Your task to perform on an android device: all mails in gmail Image 0: 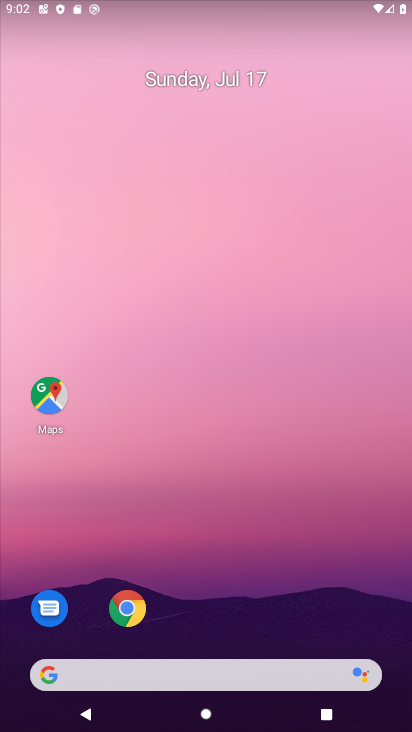
Step 0: drag from (198, 680) to (195, 224)
Your task to perform on an android device: all mails in gmail Image 1: 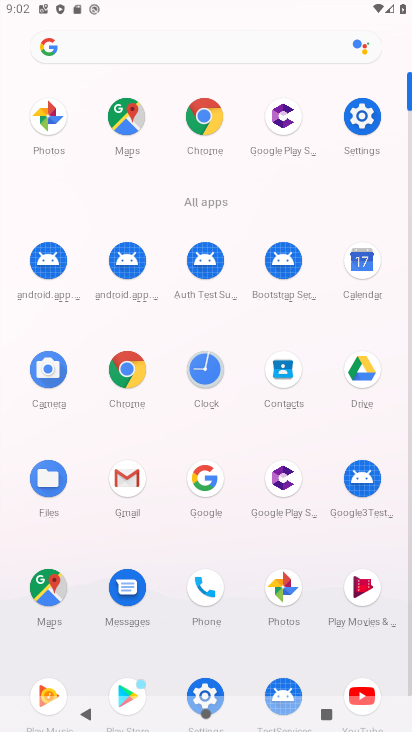
Step 1: click (127, 473)
Your task to perform on an android device: all mails in gmail Image 2: 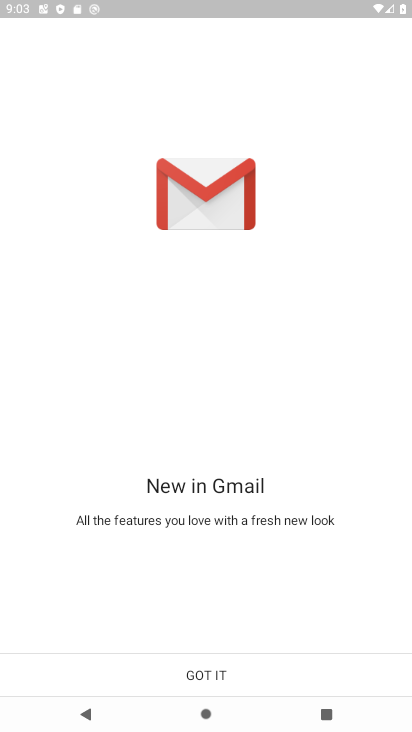
Step 2: click (214, 673)
Your task to perform on an android device: all mails in gmail Image 3: 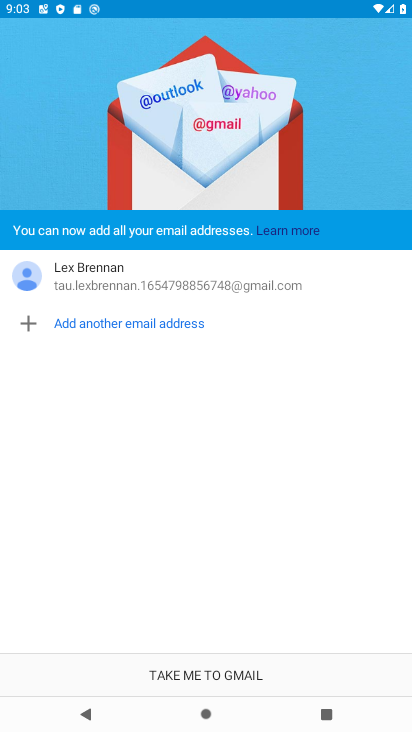
Step 3: click (204, 673)
Your task to perform on an android device: all mails in gmail Image 4: 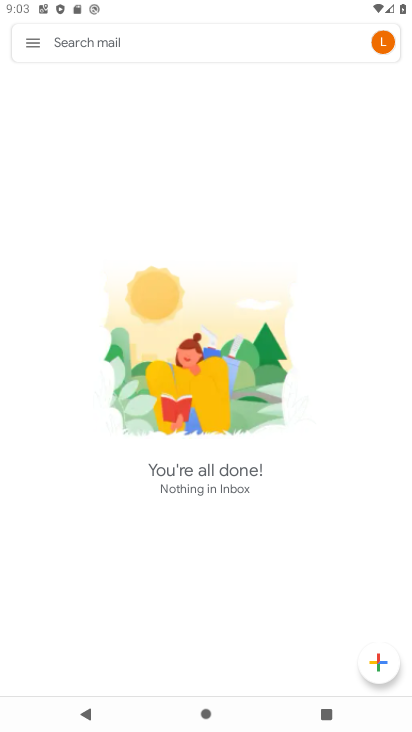
Step 4: click (36, 34)
Your task to perform on an android device: all mails in gmail Image 5: 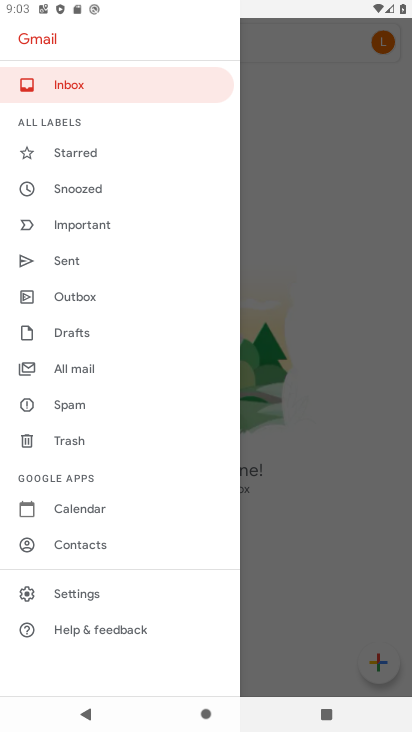
Step 5: click (70, 372)
Your task to perform on an android device: all mails in gmail Image 6: 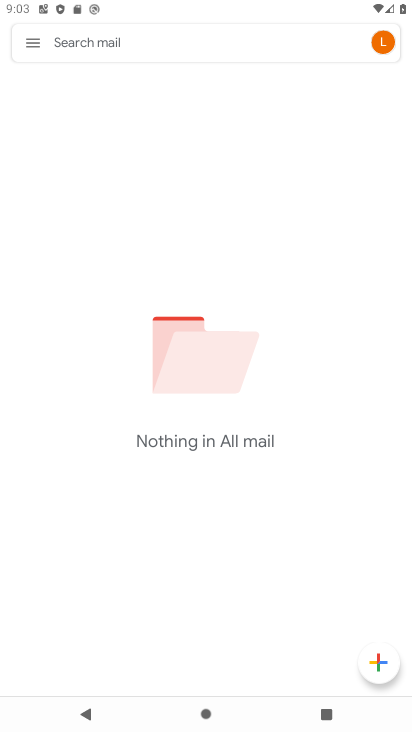
Step 6: click (26, 46)
Your task to perform on an android device: all mails in gmail Image 7: 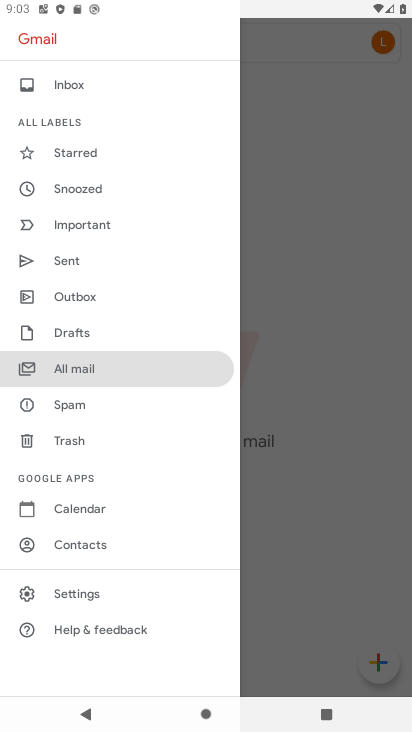
Step 7: click (76, 403)
Your task to perform on an android device: all mails in gmail Image 8: 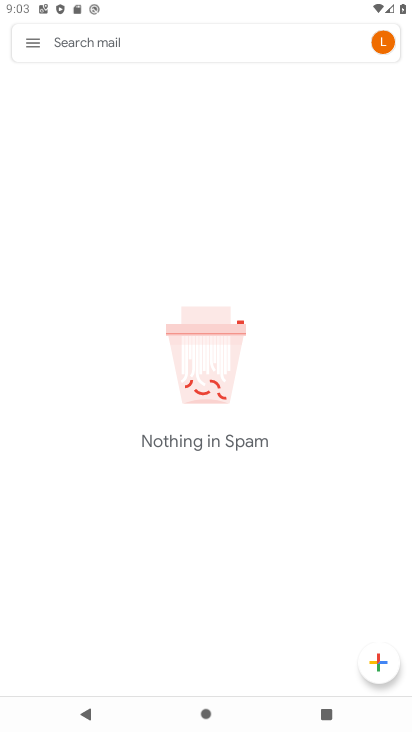
Step 8: click (36, 43)
Your task to perform on an android device: all mails in gmail Image 9: 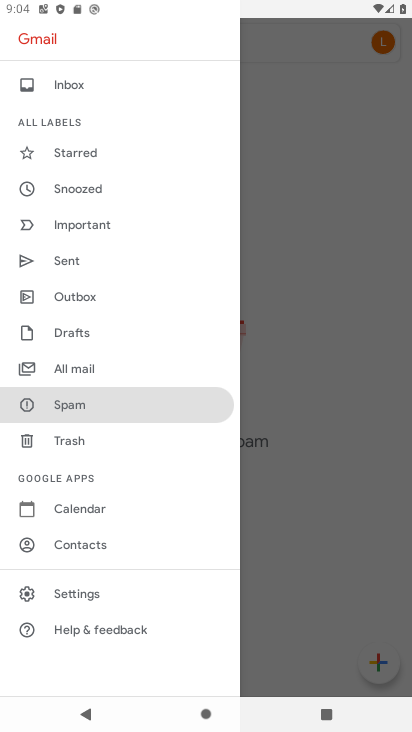
Step 9: click (57, 444)
Your task to perform on an android device: all mails in gmail Image 10: 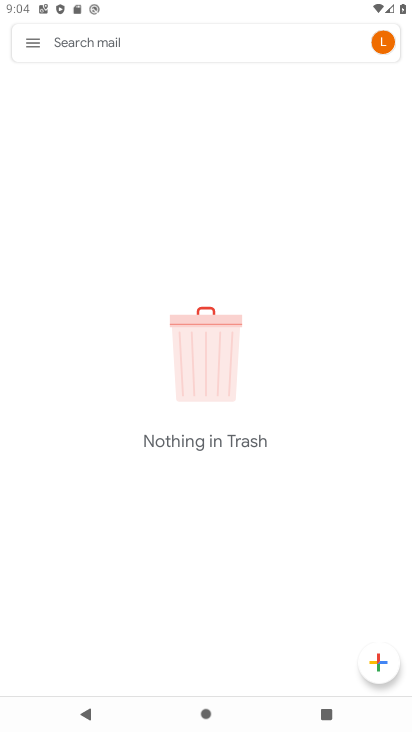
Step 10: task complete